Your task to perform on an android device: Search for vegetarian restaurants on Maps Image 0: 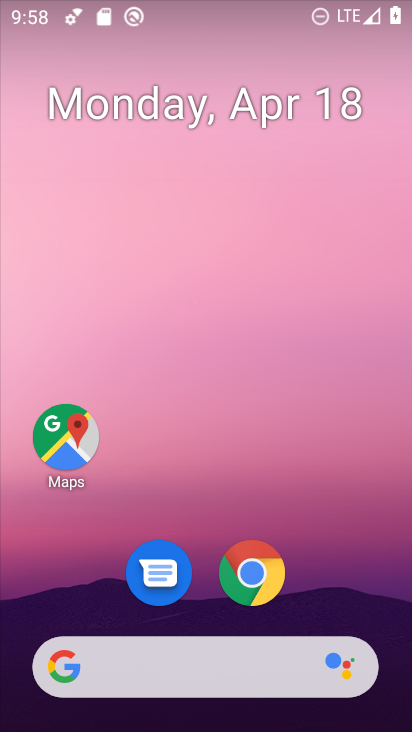
Step 0: drag from (367, 597) to (278, 41)
Your task to perform on an android device: Search for vegetarian restaurants on Maps Image 1: 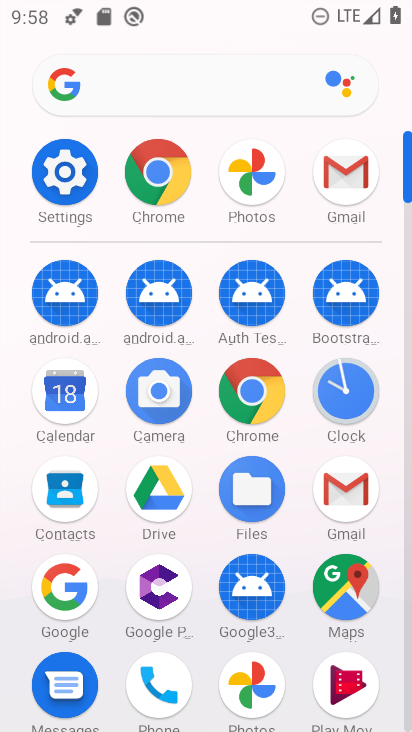
Step 1: click (357, 596)
Your task to perform on an android device: Search for vegetarian restaurants on Maps Image 2: 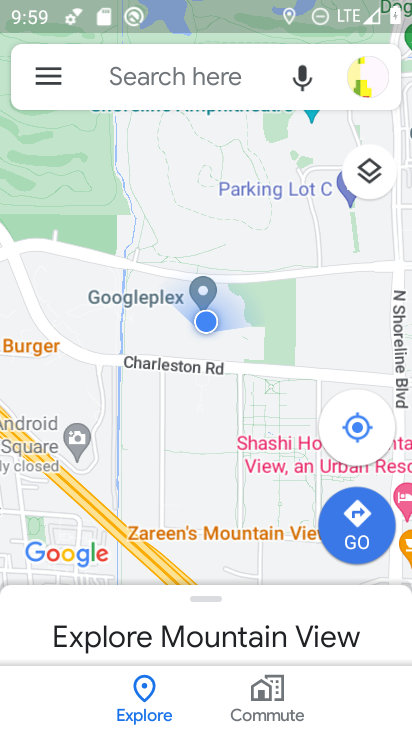
Step 2: click (153, 62)
Your task to perform on an android device: Search for vegetarian restaurants on Maps Image 3: 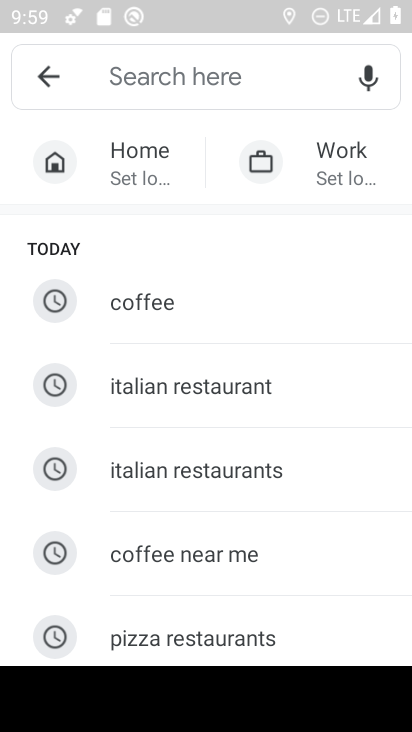
Step 3: drag from (230, 518) to (226, 85)
Your task to perform on an android device: Search for vegetarian restaurants on Maps Image 4: 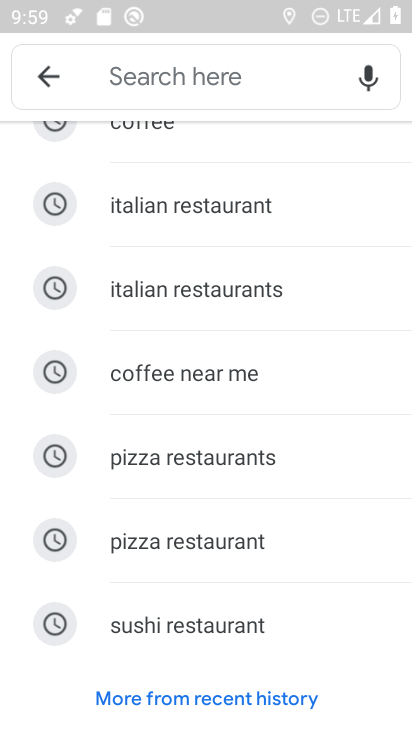
Step 4: drag from (203, 214) to (189, 673)
Your task to perform on an android device: Search for vegetarian restaurants on Maps Image 5: 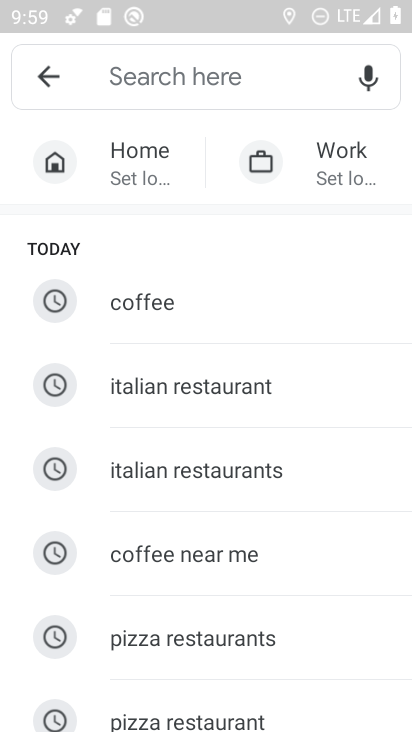
Step 5: click (180, 92)
Your task to perform on an android device: Search for vegetarian restaurants on Maps Image 6: 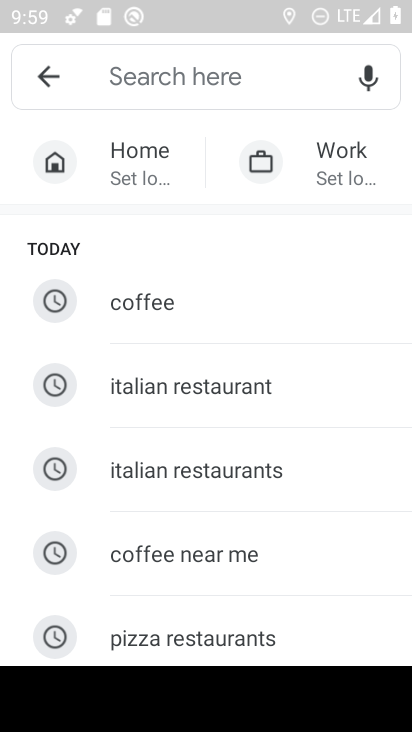
Step 6: type "vegetarian restaurants"
Your task to perform on an android device: Search for vegetarian restaurants on Maps Image 7: 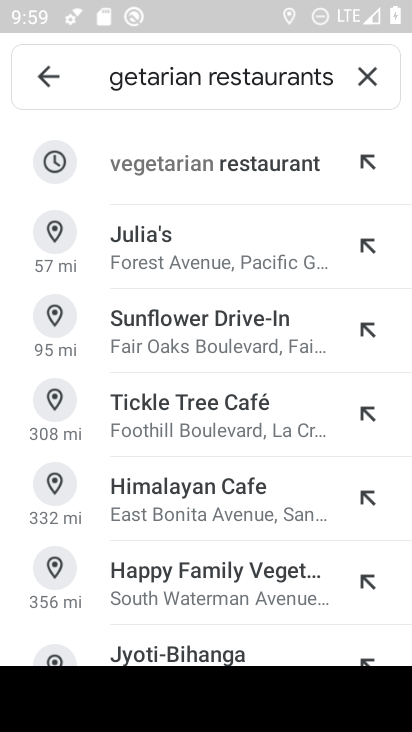
Step 7: click (213, 174)
Your task to perform on an android device: Search for vegetarian restaurants on Maps Image 8: 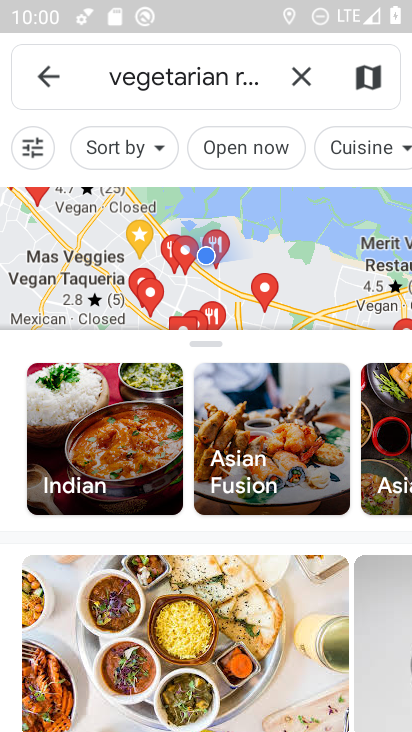
Step 8: task complete